Your task to perform on an android device: check storage Image 0: 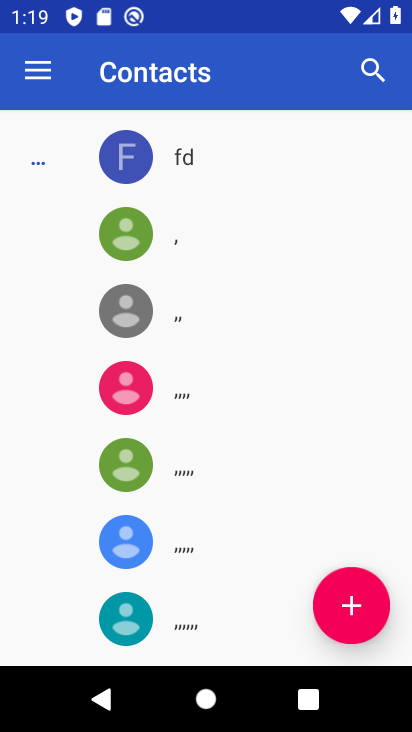
Step 0: press home button
Your task to perform on an android device: check storage Image 1: 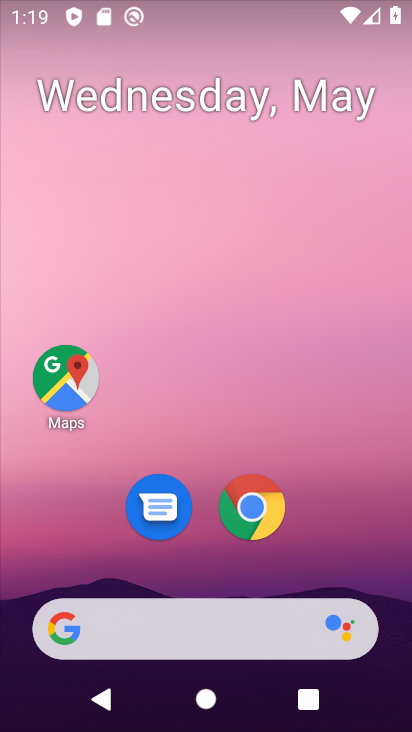
Step 1: drag from (376, 573) to (232, 148)
Your task to perform on an android device: check storage Image 2: 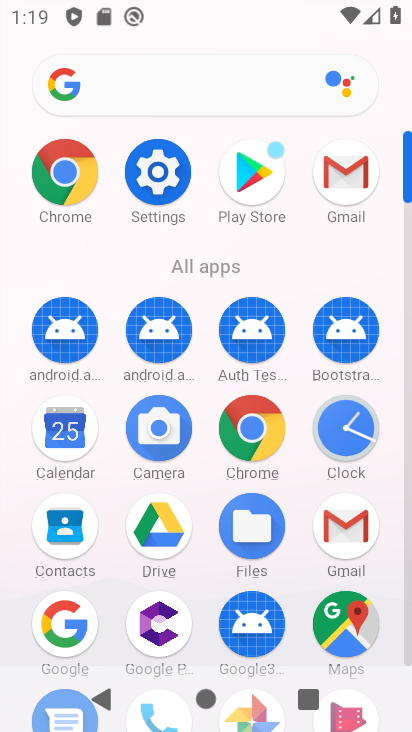
Step 2: click (136, 191)
Your task to perform on an android device: check storage Image 3: 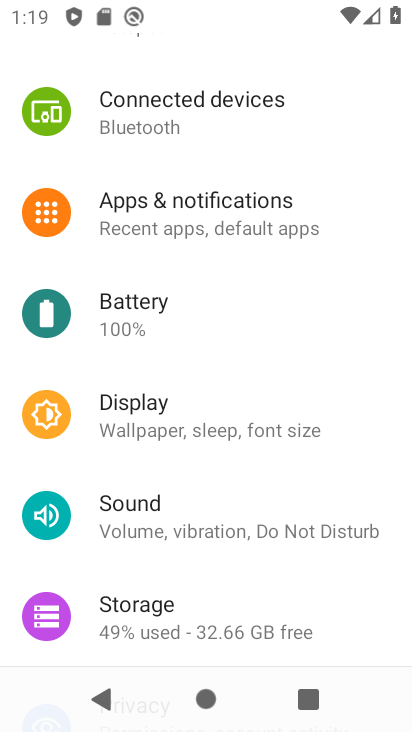
Step 3: click (265, 616)
Your task to perform on an android device: check storage Image 4: 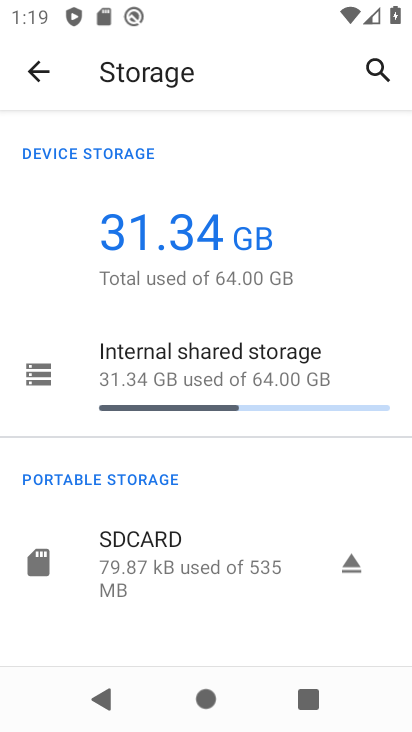
Step 4: task complete